Your task to perform on an android device: change the clock display to digital Image 0: 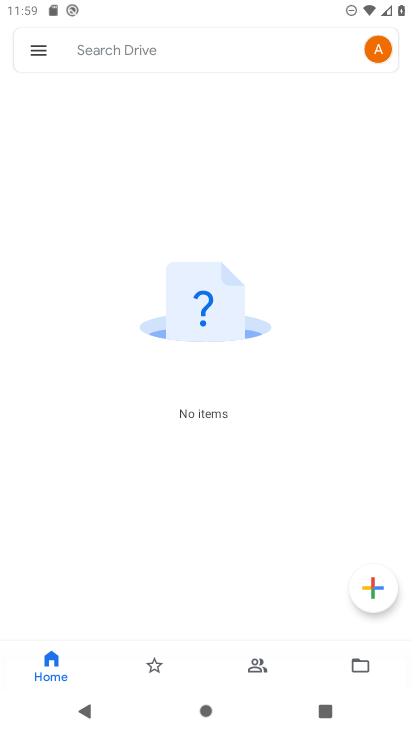
Step 0: press home button
Your task to perform on an android device: change the clock display to digital Image 1: 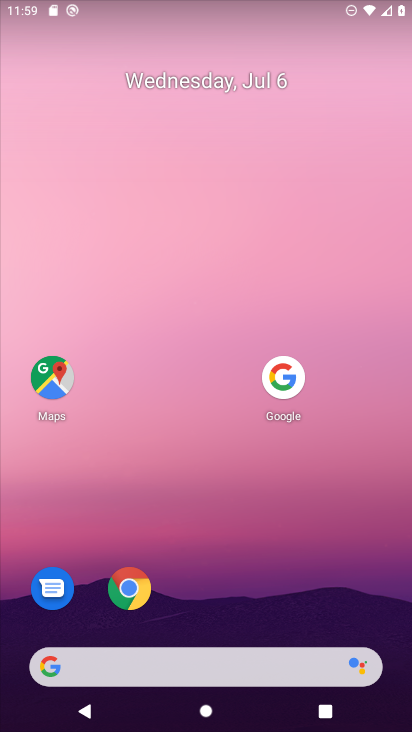
Step 1: drag from (231, 675) to (345, 122)
Your task to perform on an android device: change the clock display to digital Image 2: 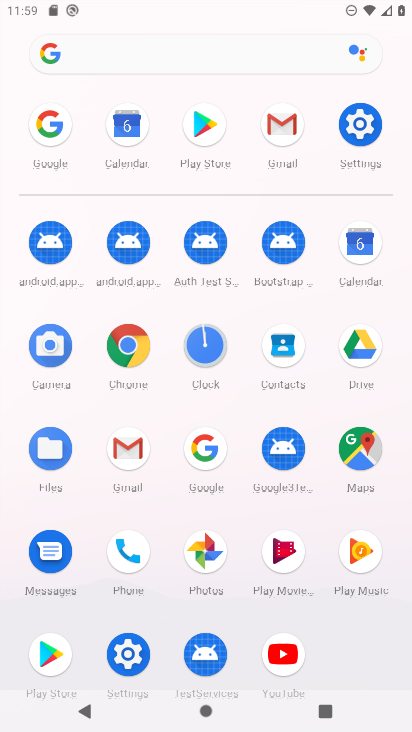
Step 2: click (201, 350)
Your task to perform on an android device: change the clock display to digital Image 3: 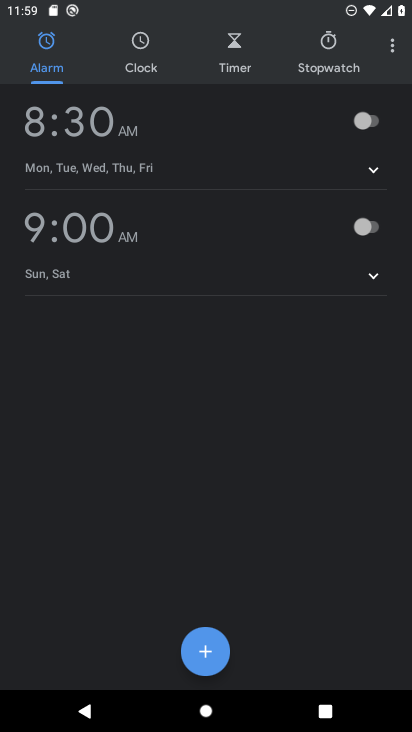
Step 3: click (389, 47)
Your task to perform on an android device: change the clock display to digital Image 4: 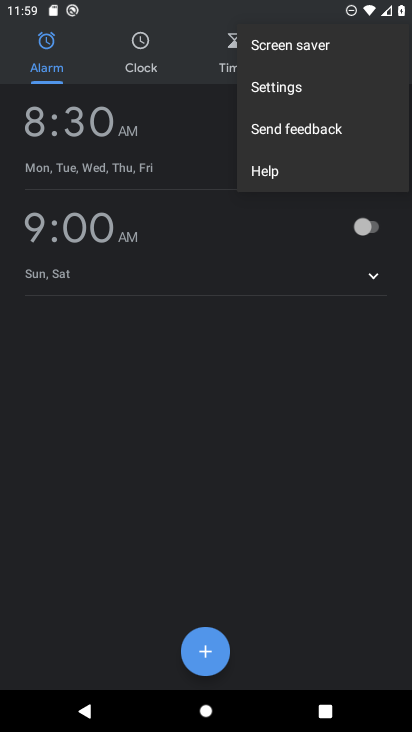
Step 4: click (286, 89)
Your task to perform on an android device: change the clock display to digital Image 5: 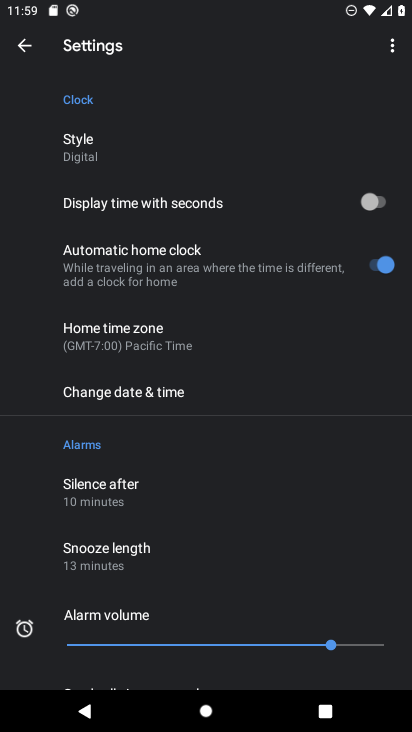
Step 5: task complete